Your task to perform on an android device: turn on priority inbox in the gmail app Image 0: 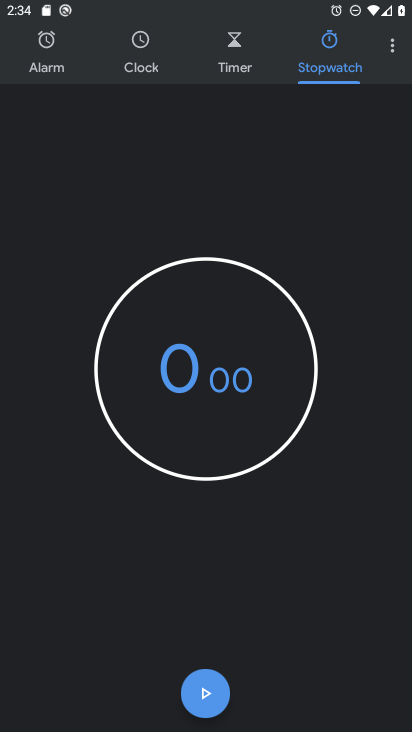
Step 0: press home button
Your task to perform on an android device: turn on priority inbox in the gmail app Image 1: 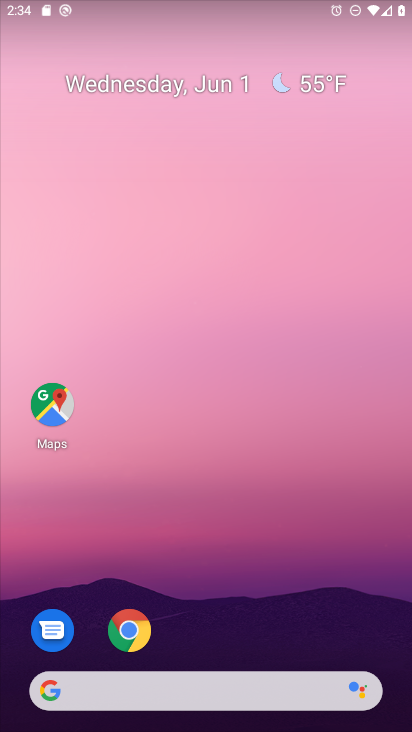
Step 1: drag from (316, 611) to (342, 61)
Your task to perform on an android device: turn on priority inbox in the gmail app Image 2: 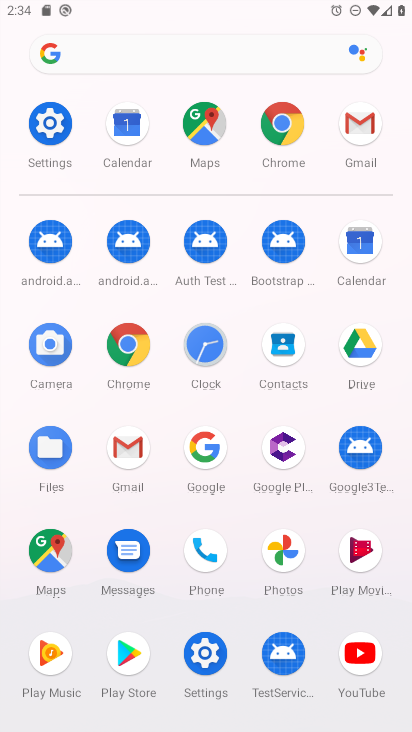
Step 2: click (127, 453)
Your task to perform on an android device: turn on priority inbox in the gmail app Image 3: 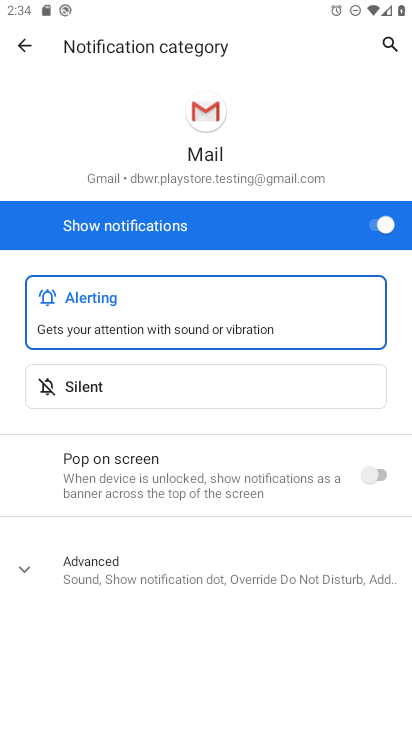
Step 3: press back button
Your task to perform on an android device: turn on priority inbox in the gmail app Image 4: 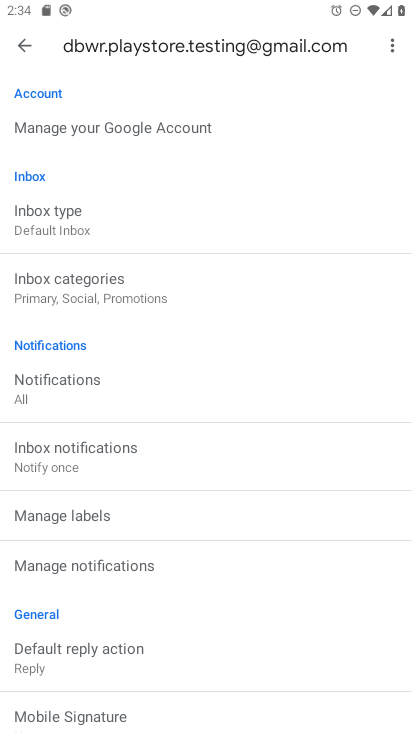
Step 4: click (81, 220)
Your task to perform on an android device: turn on priority inbox in the gmail app Image 5: 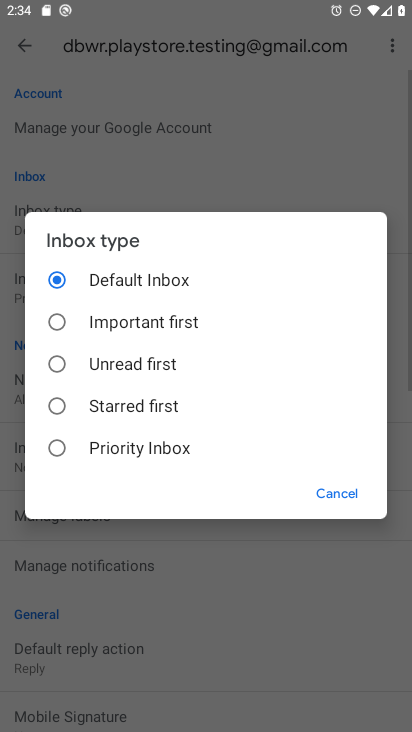
Step 5: click (66, 447)
Your task to perform on an android device: turn on priority inbox in the gmail app Image 6: 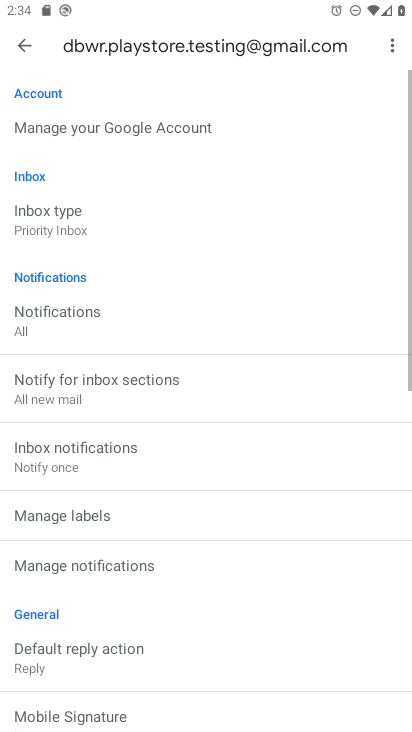
Step 6: task complete